Your task to perform on an android device: find snoozed emails in the gmail app Image 0: 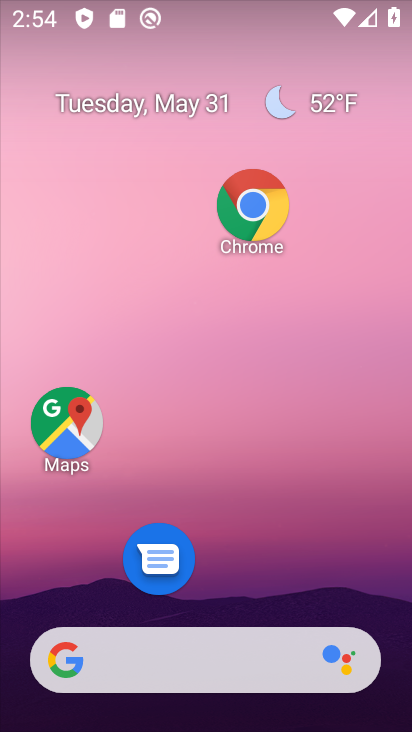
Step 0: drag from (207, 595) to (217, 176)
Your task to perform on an android device: find snoozed emails in the gmail app Image 1: 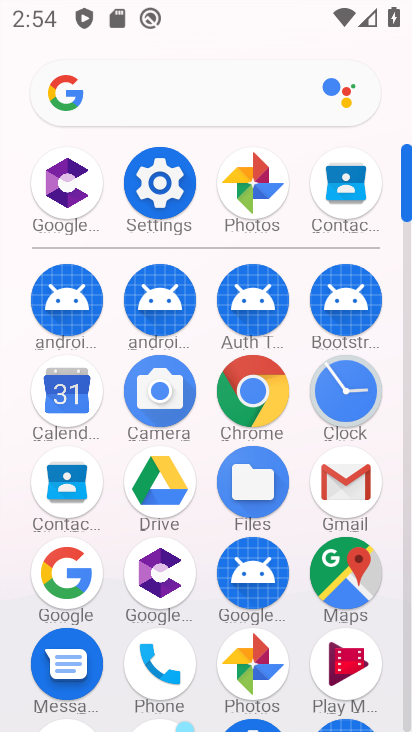
Step 1: click (361, 491)
Your task to perform on an android device: find snoozed emails in the gmail app Image 2: 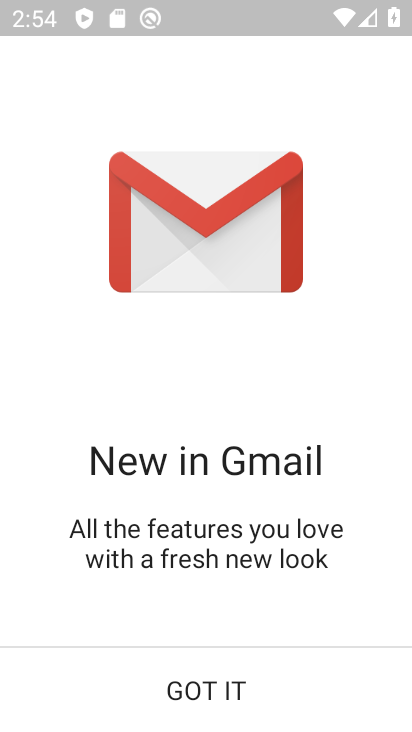
Step 2: click (201, 655)
Your task to perform on an android device: find snoozed emails in the gmail app Image 3: 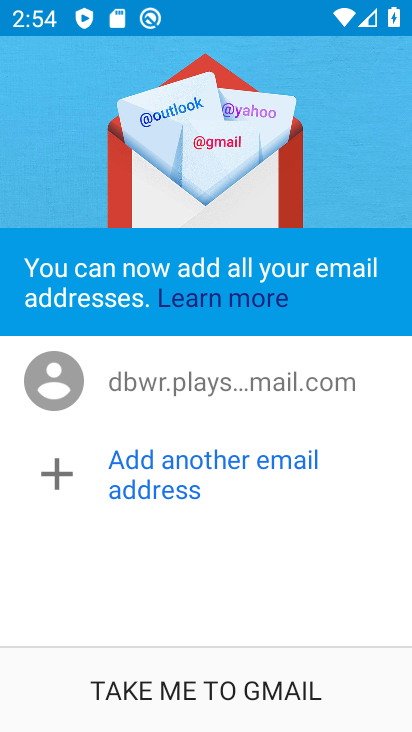
Step 3: click (236, 686)
Your task to perform on an android device: find snoozed emails in the gmail app Image 4: 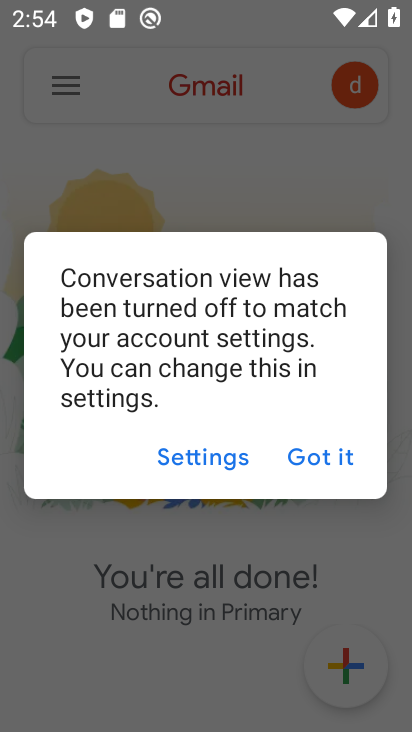
Step 4: click (315, 467)
Your task to perform on an android device: find snoozed emails in the gmail app Image 5: 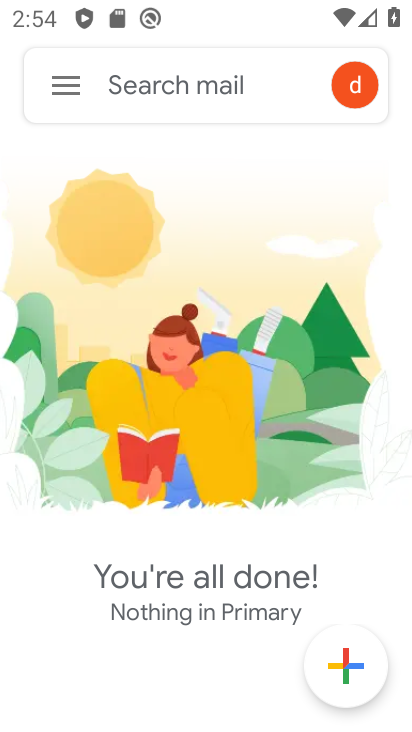
Step 5: click (56, 77)
Your task to perform on an android device: find snoozed emails in the gmail app Image 6: 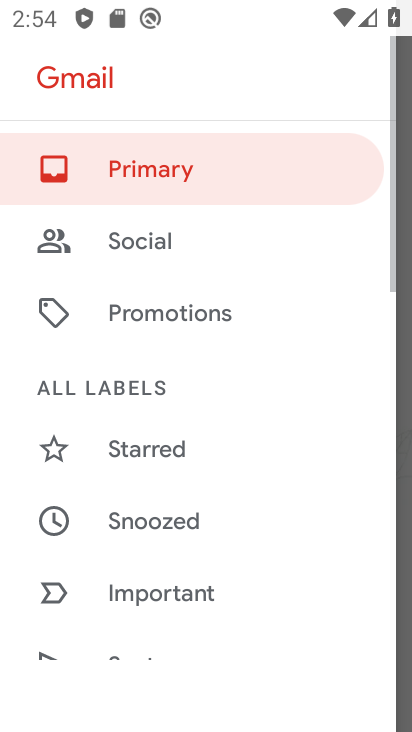
Step 6: click (186, 507)
Your task to perform on an android device: find snoozed emails in the gmail app Image 7: 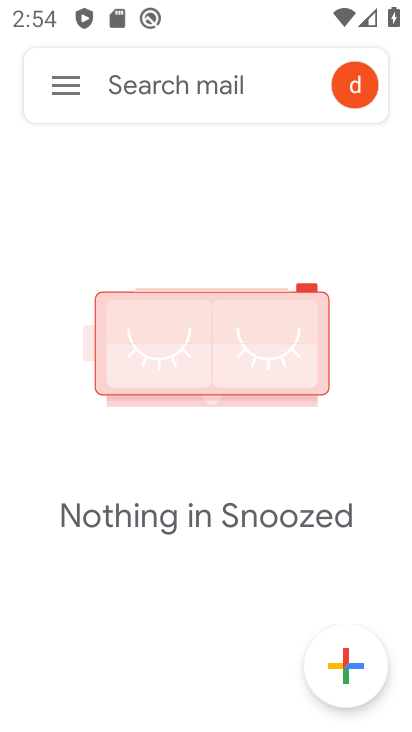
Step 7: task complete